Your task to perform on an android device: change notifications settings Image 0: 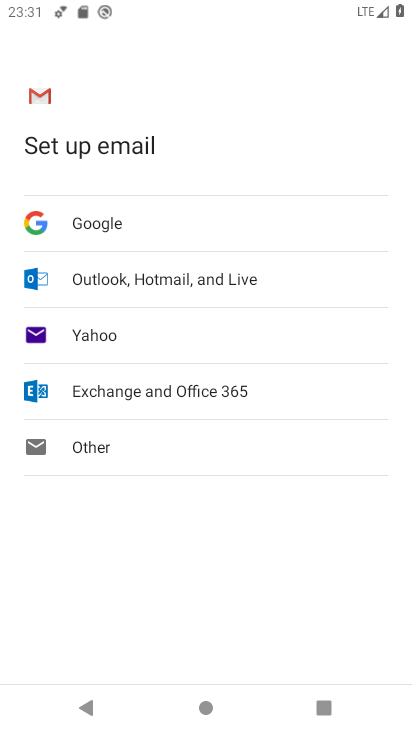
Step 0: drag from (222, 591) to (242, 113)
Your task to perform on an android device: change notifications settings Image 1: 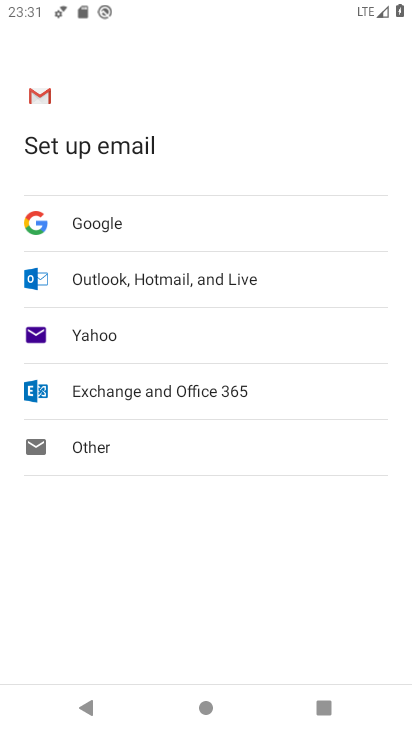
Step 1: press back button
Your task to perform on an android device: change notifications settings Image 2: 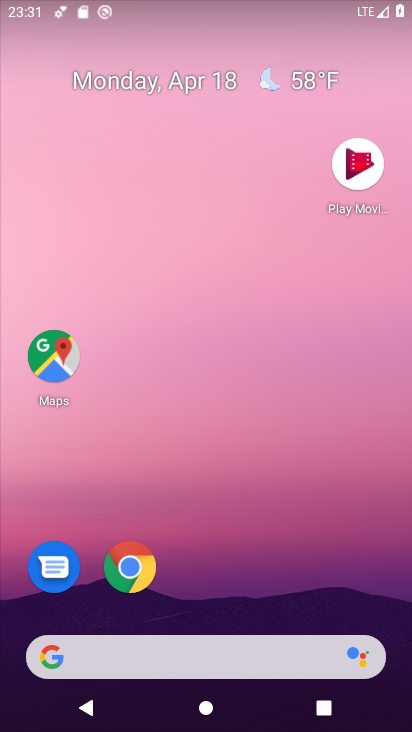
Step 2: drag from (221, 441) to (398, 218)
Your task to perform on an android device: change notifications settings Image 3: 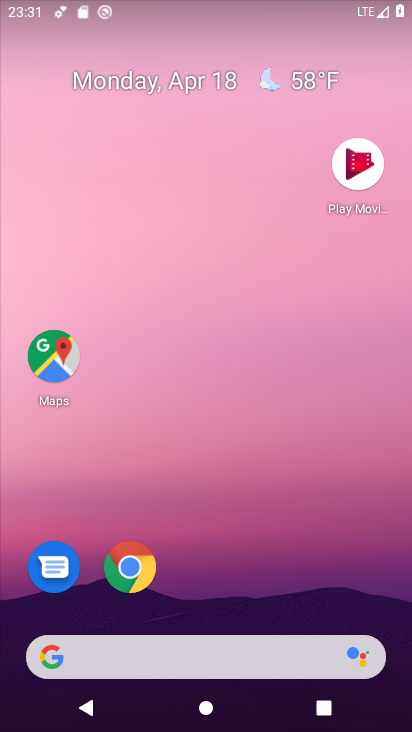
Step 3: drag from (210, 577) to (280, 75)
Your task to perform on an android device: change notifications settings Image 4: 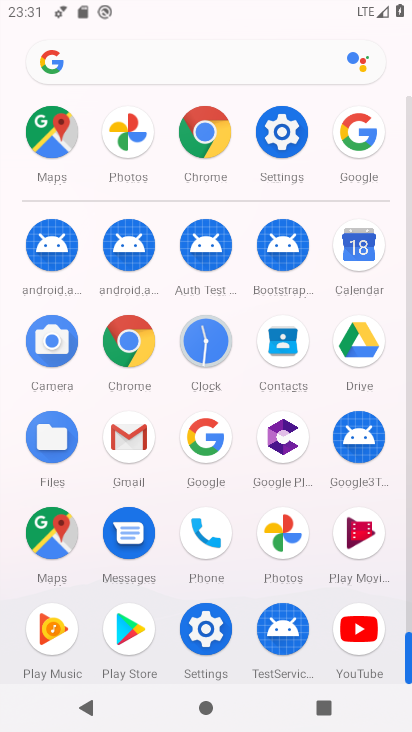
Step 4: click (281, 133)
Your task to perform on an android device: change notifications settings Image 5: 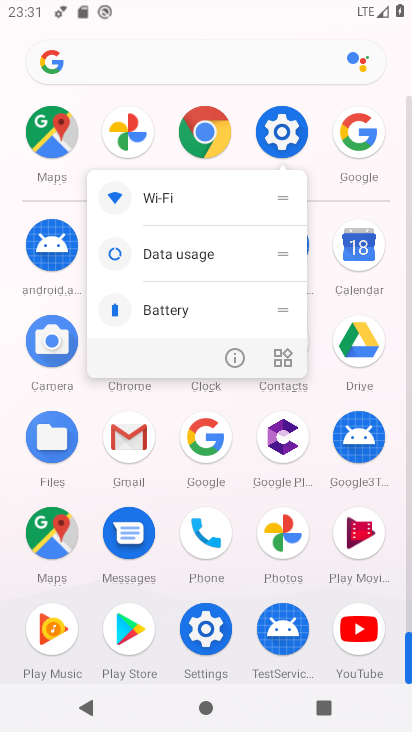
Step 5: click (239, 355)
Your task to perform on an android device: change notifications settings Image 6: 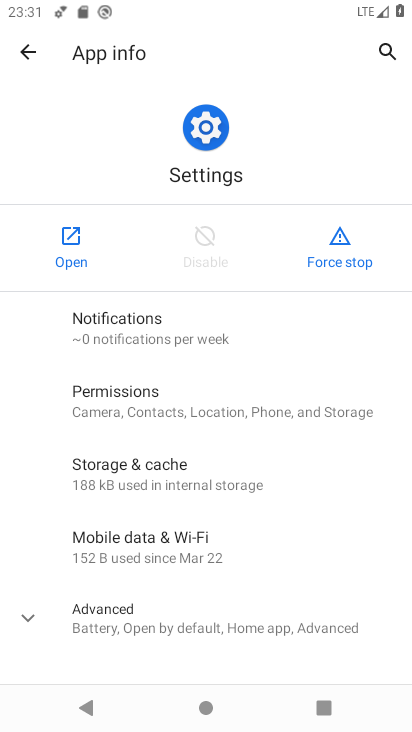
Step 6: click (77, 244)
Your task to perform on an android device: change notifications settings Image 7: 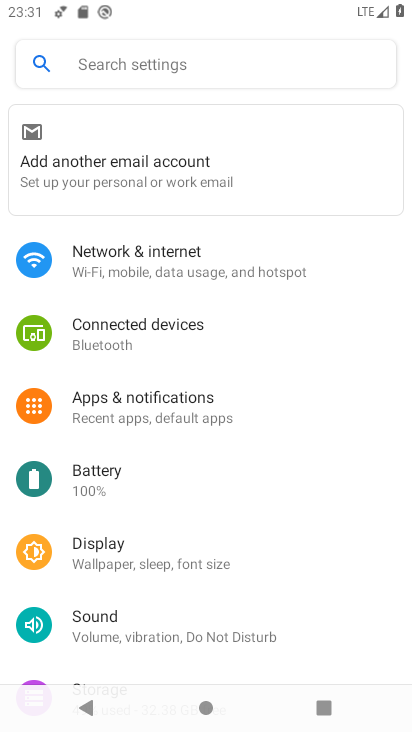
Step 7: click (142, 397)
Your task to perform on an android device: change notifications settings Image 8: 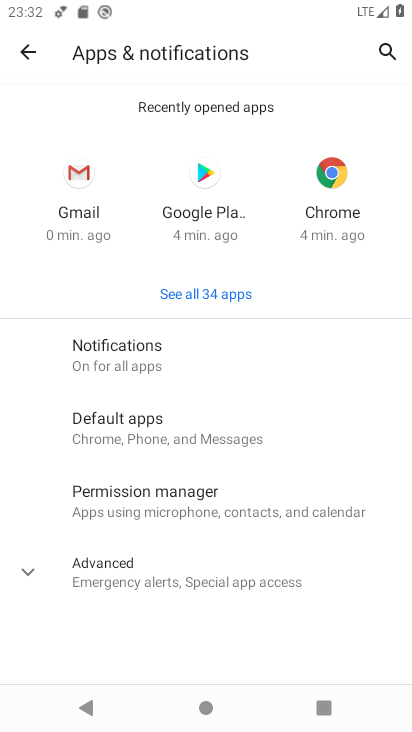
Step 8: click (133, 353)
Your task to perform on an android device: change notifications settings Image 9: 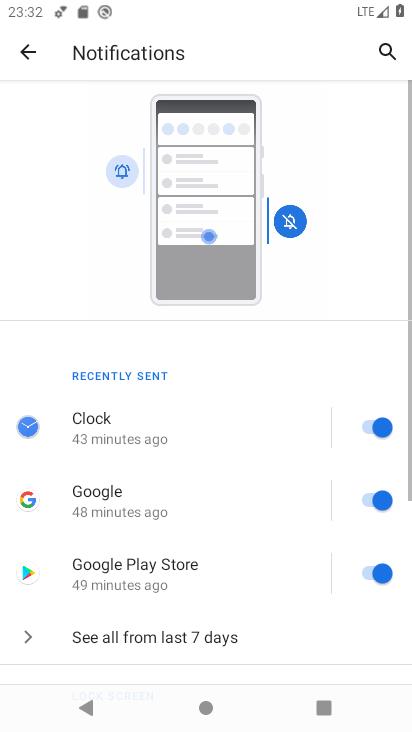
Step 9: drag from (227, 554) to (243, 173)
Your task to perform on an android device: change notifications settings Image 10: 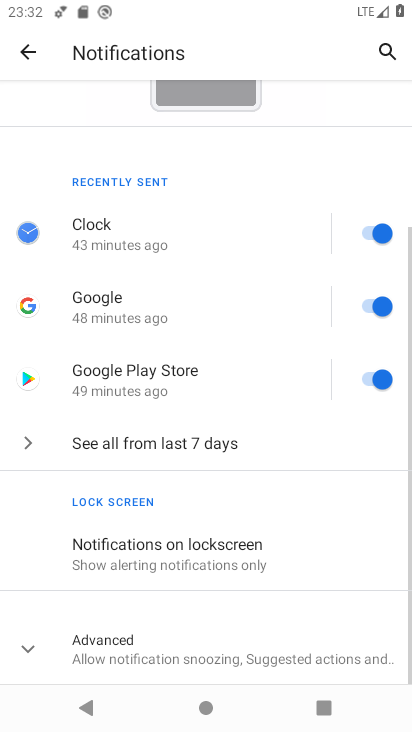
Step 10: drag from (211, 580) to (259, 126)
Your task to perform on an android device: change notifications settings Image 11: 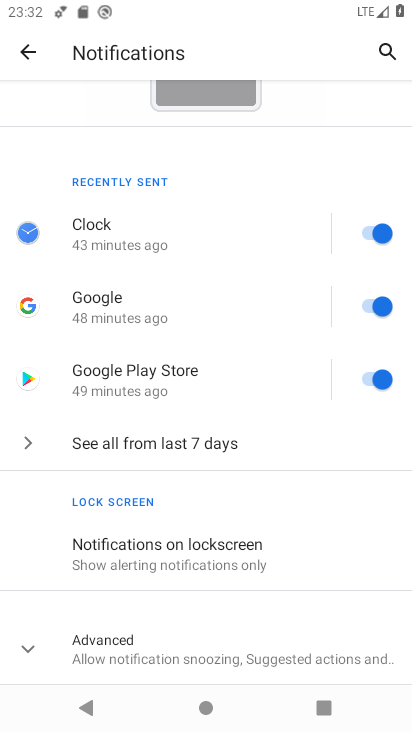
Step 11: drag from (210, 618) to (189, 113)
Your task to perform on an android device: change notifications settings Image 12: 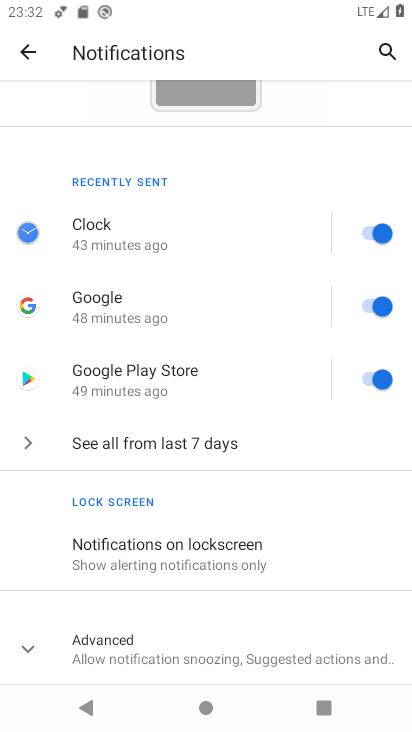
Step 12: click (358, 380)
Your task to perform on an android device: change notifications settings Image 13: 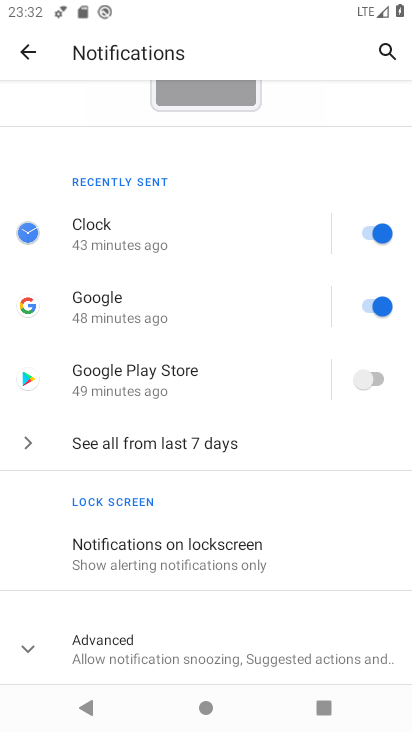
Step 13: task complete